Your task to perform on an android device: Go to wifi settings Image 0: 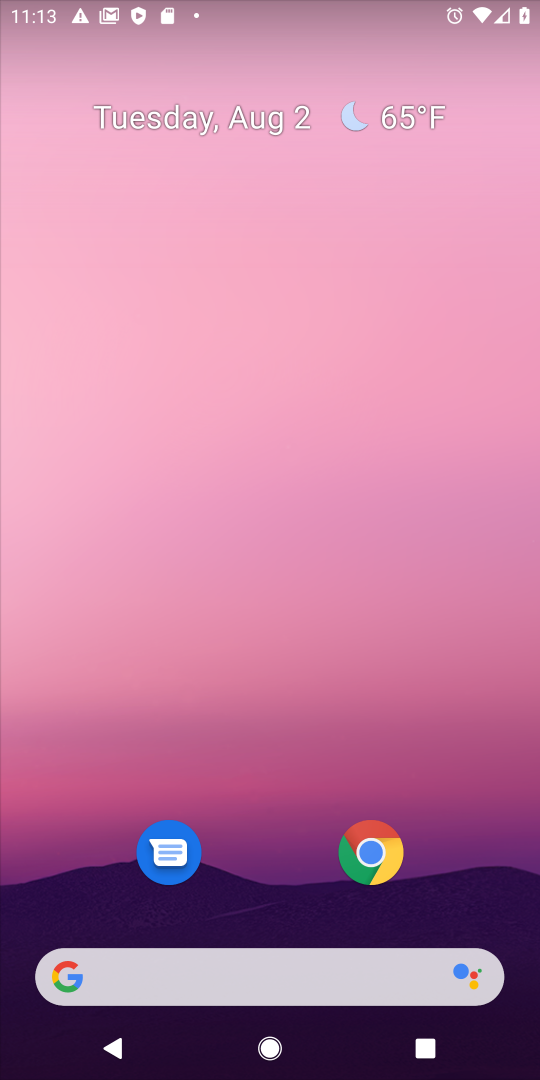
Step 0: drag from (39, 1040) to (227, 113)
Your task to perform on an android device: Go to wifi settings Image 1: 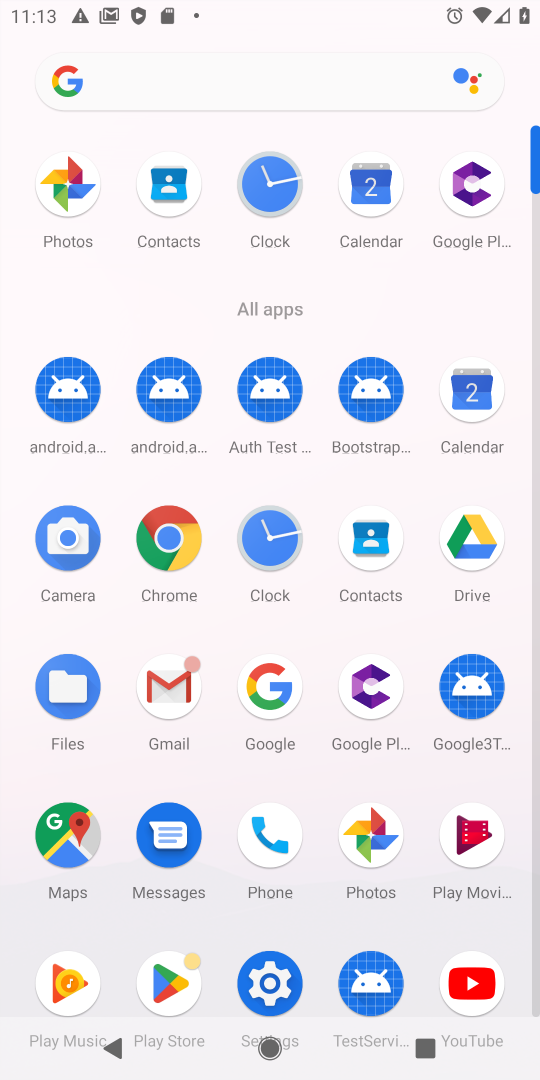
Step 1: click (267, 980)
Your task to perform on an android device: Go to wifi settings Image 2: 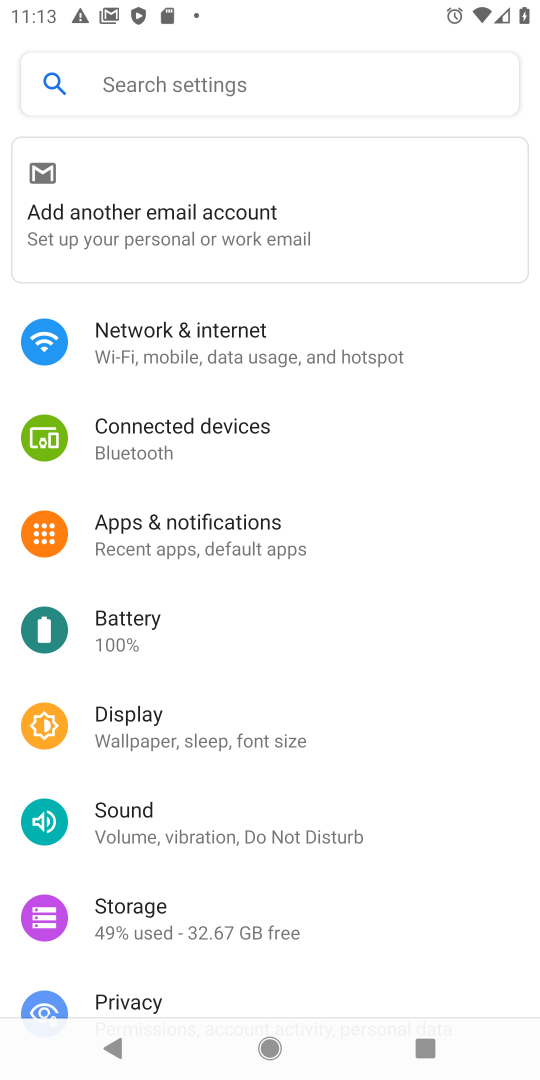
Step 2: task complete